Your task to perform on an android device: find photos in the google photos app Image 0: 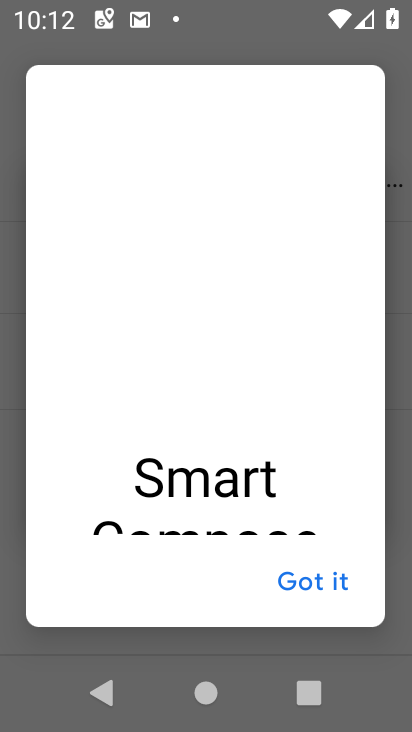
Step 0: press home button
Your task to perform on an android device: find photos in the google photos app Image 1: 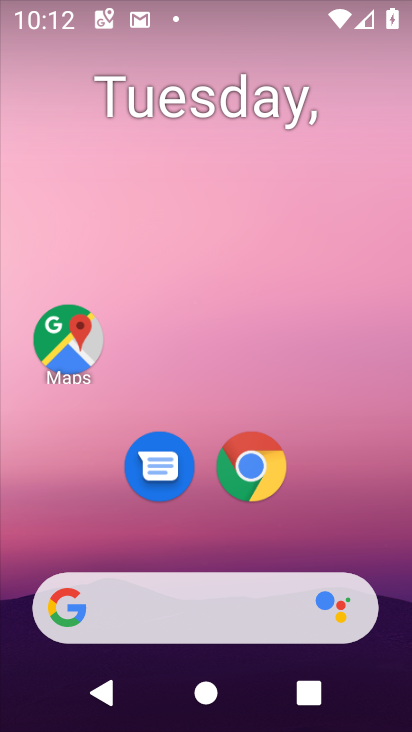
Step 1: drag from (243, 615) to (238, 76)
Your task to perform on an android device: find photos in the google photos app Image 2: 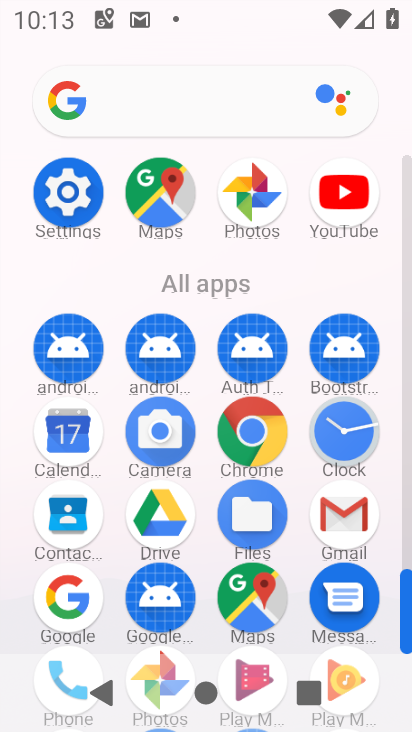
Step 2: drag from (218, 518) to (245, 321)
Your task to perform on an android device: find photos in the google photos app Image 3: 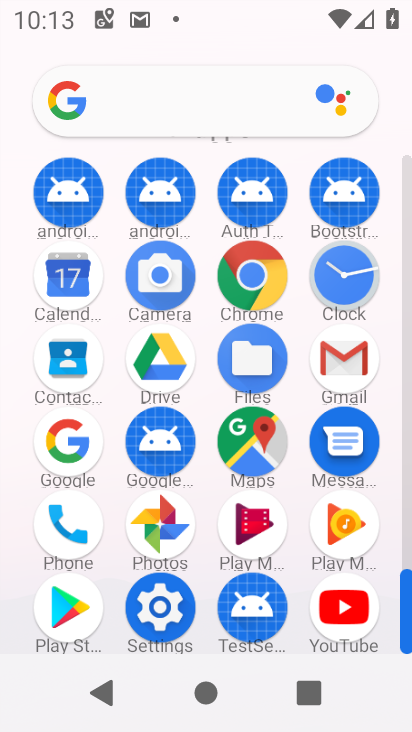
Step 3: click (169, 515)
Your task to perform on an android device: find photos in the google photos app Image 4: 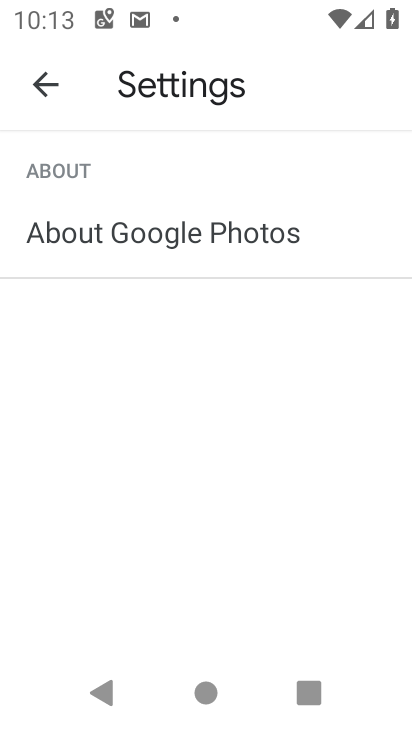
Step 4: click (14, 97)
Your task to perform on an android device: find photos in the google photos app Image 5: 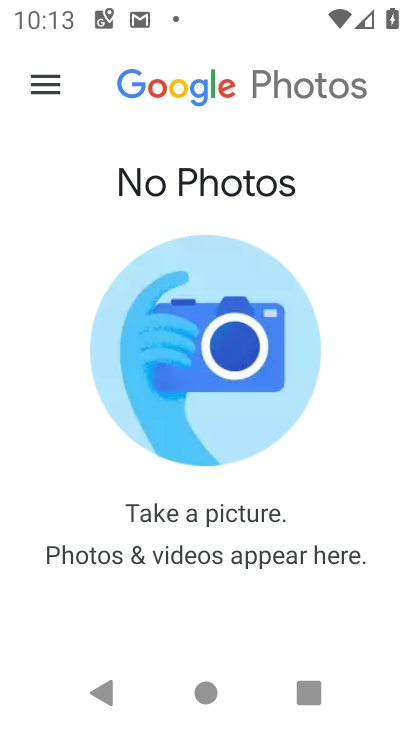
Step 5: task complete